Your task to perform on an android device: turn on showing notifications on the lock screen Image 0: 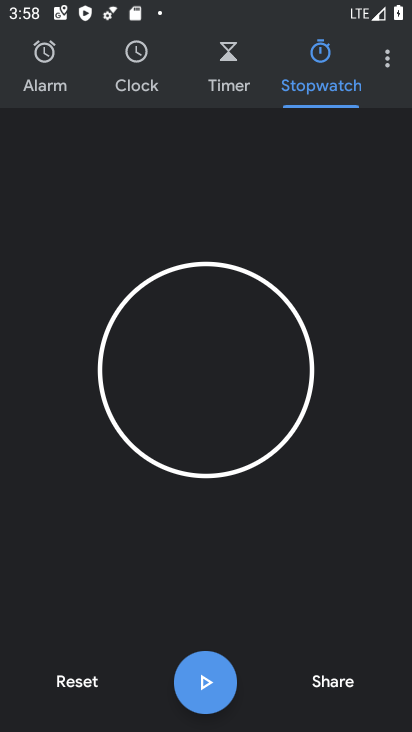
Step 0: press home button
Your task to perform on an android device: turn on showing notifications on the lock screen Image 1: 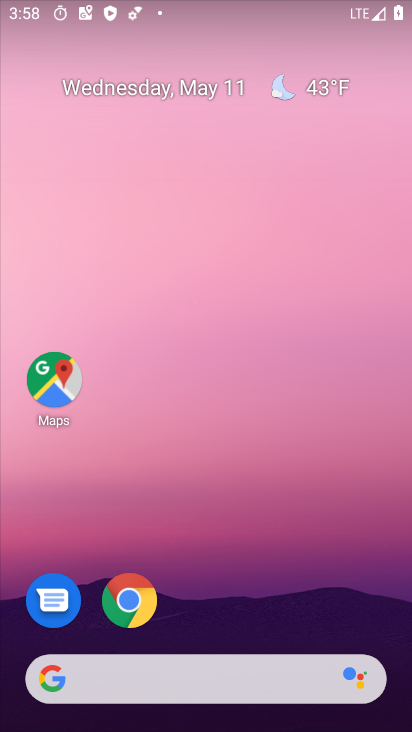
Step 1: drag from (318, 604) to (343, 18)
Your task to perform on an android device: turn on showing notifications on the lock screen Image 2: 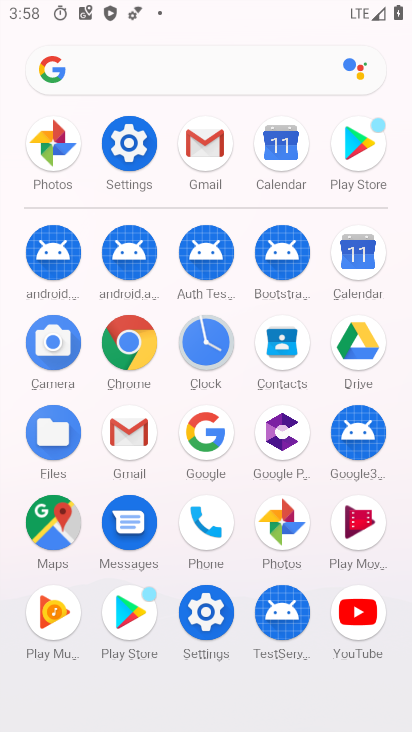
Step 2: click (136, 138)
Your task to perform on an android device: turn on showing notifications on the lock screen Image 3: 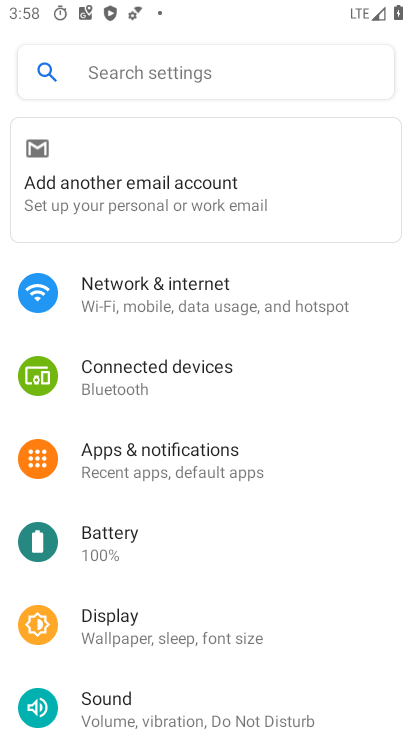
Step 3: click (156, 455)
Your task to perform on an android device: turn on showing notifications on the lock screen Image 4: 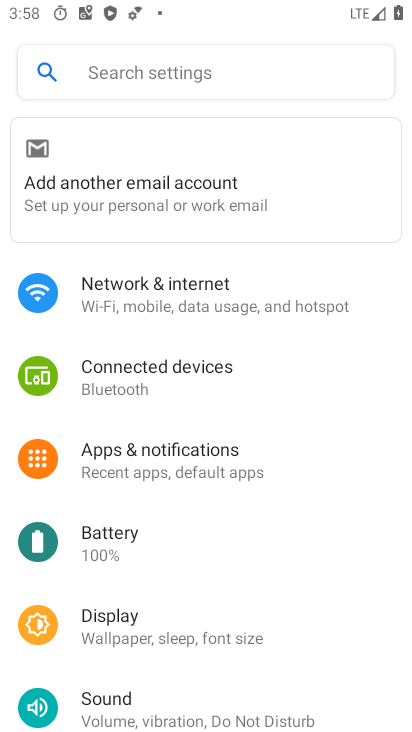
Step 4: click (151, 465)
Your task to perform on an android device: turn on showing notifications on the lock screen Image 5: 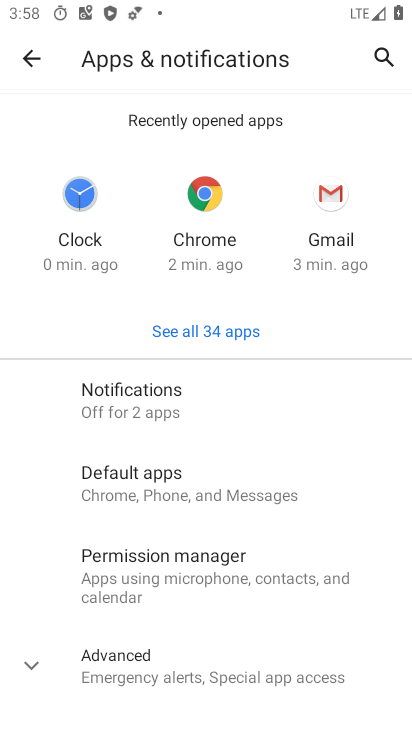
Step 5: click (132, 410)
Your task to perform on an android device: turn on showing notifications on the lock screen Image 6: 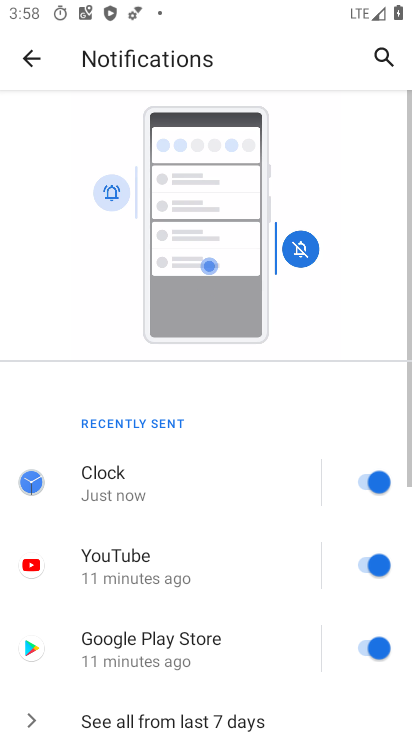
Step 6: drag from (199, 572) to (203, 204)
Your task to perform on an android device: turn on showing notifications on the lock screen Image 7: 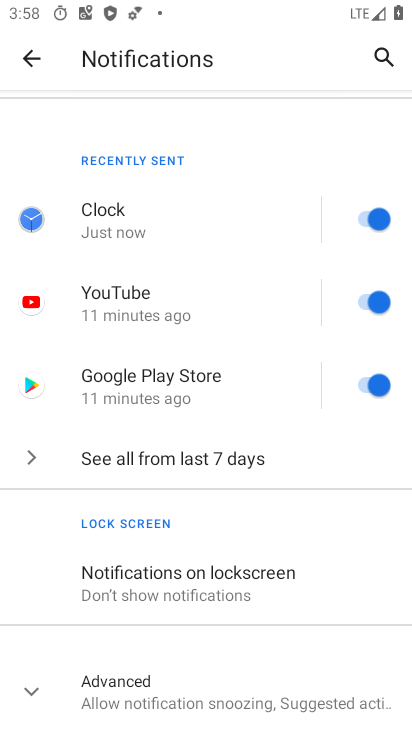
Step 7: click (117, 584)
Your task to perform on an android device: turn on showing notifications on the lock screen Image 8: 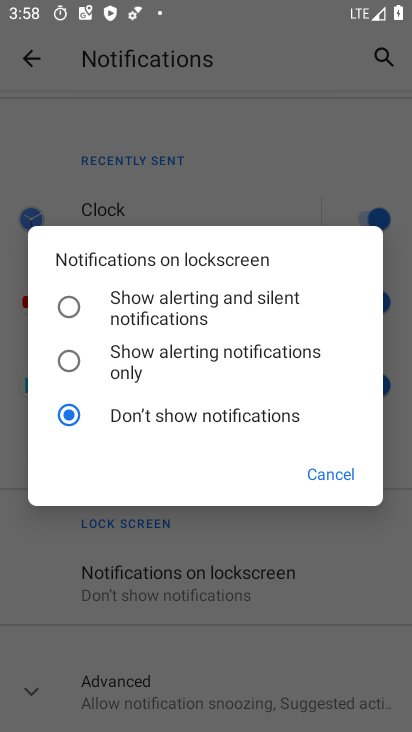
Step 8: click (67, 310)
Your task to perform on an android device: turn on showing notifications on the lock screen Image 9: 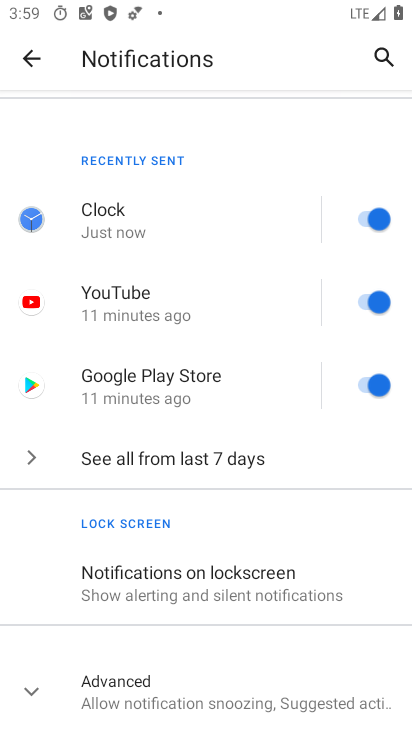
Step 9: task complete